Your task to perform on an android device: Open Android settings Image 0: 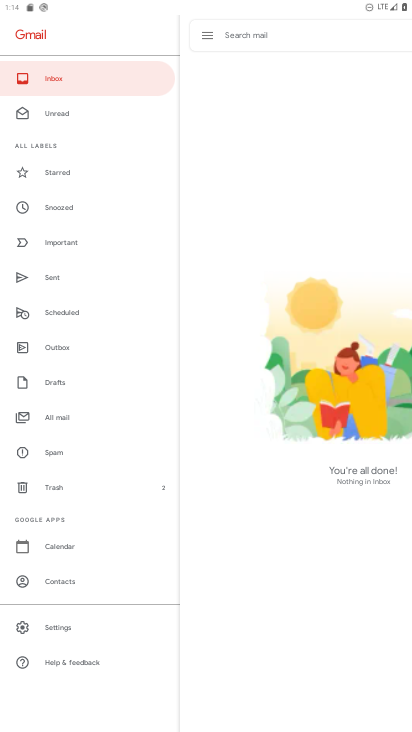
Step 0: press home button
Your task to perform on an android device: Open Android settings Image 1: 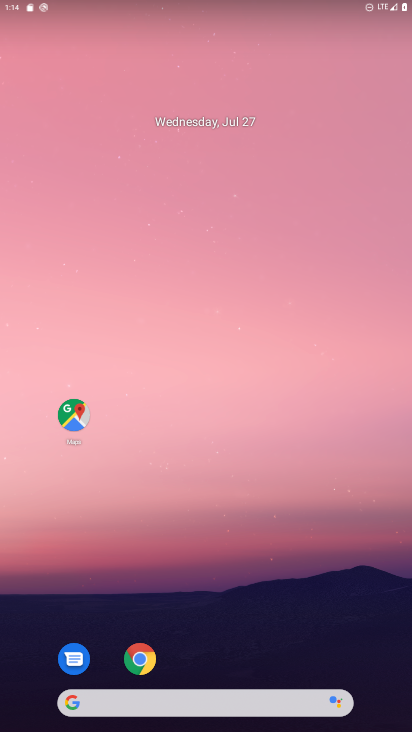
Step 1: drag from (232, 630) to (316, 3)
Your task to perform on an android device: Open Android settings Image 2: 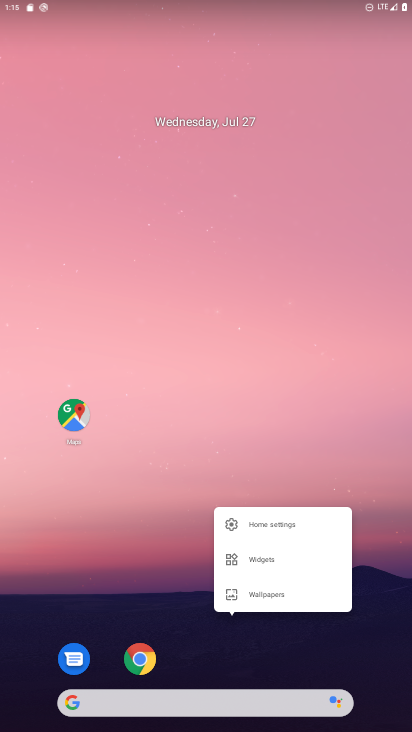
Step 2: click (220, 461)
Your task to perform on an android device: Open Android settings Image 3: 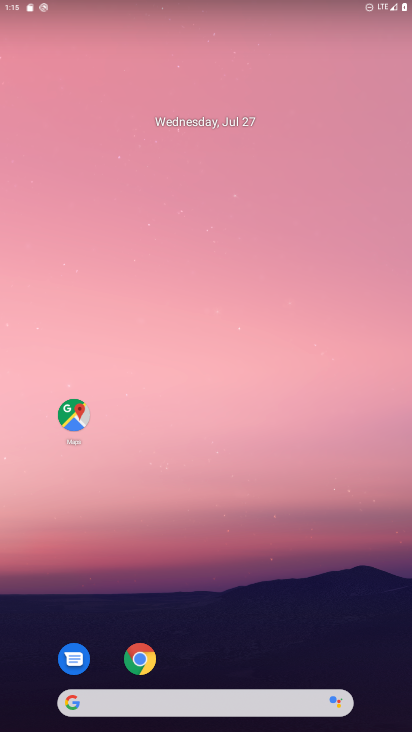
Step 3: drag from (233, 656) to (201, 238)
Your task to perform on an android device: Open Android settings Image 4: 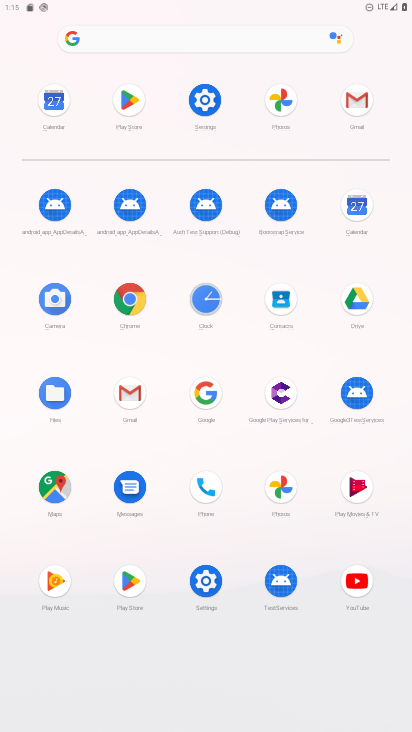
Step 4: click (213, 585)
Your task to perform on an android device: Open Android settings Image 5: 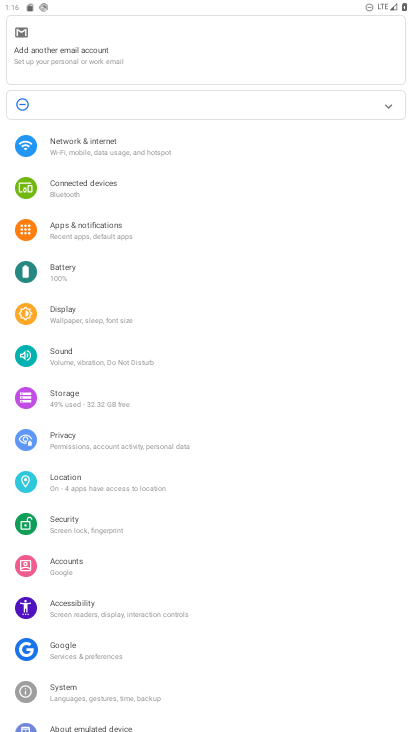
Step 5: task complete